Your task to perform on an android device: Go to ESPN.com Image 0: 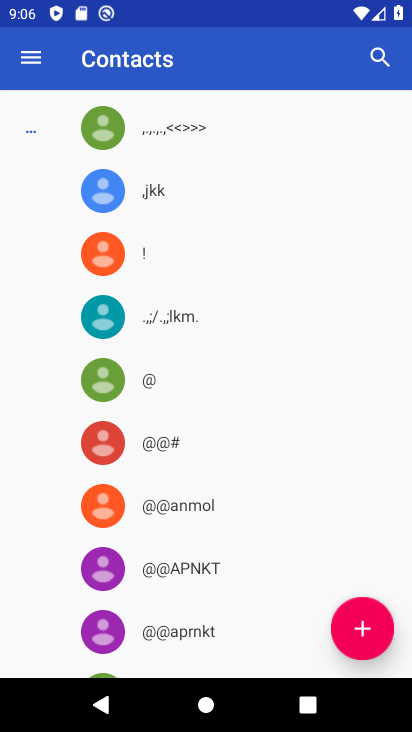
Step 0: press home button
Your task to perform on an android device: Go to ESPN.com Image 1: 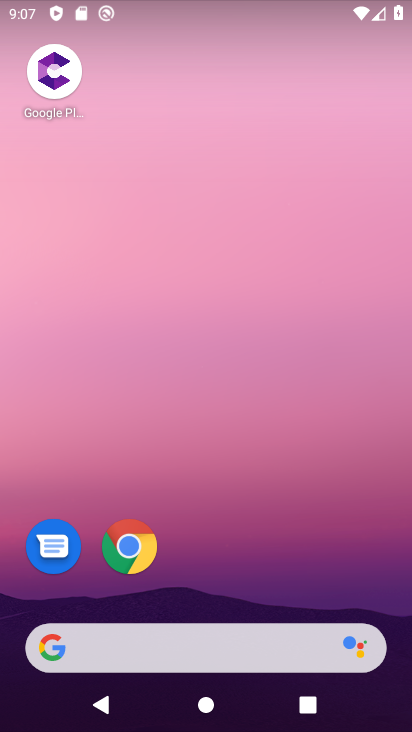
Step 1: click (124, 551)
Your task to perform on an android device: Go to ESPN.com Image 2: 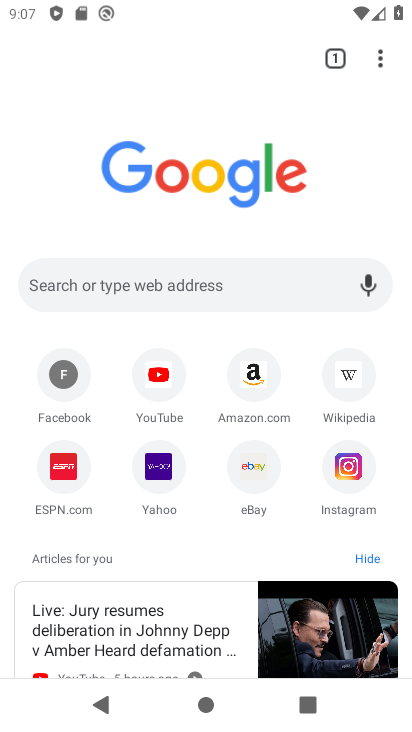
Step 2: click (55, 482)
Your task to perform on an android device: Go to ESPN.com Image 3: 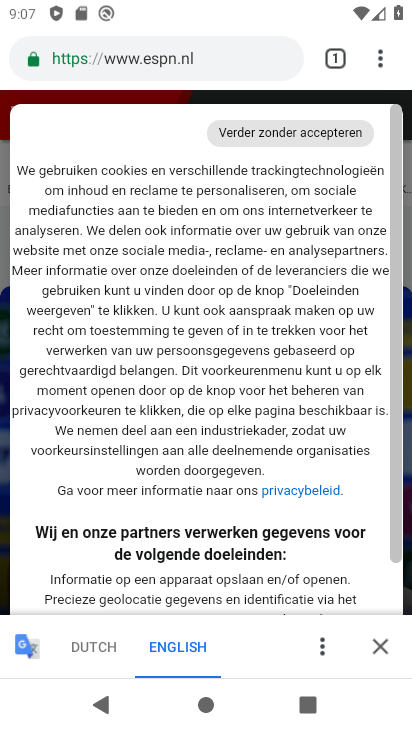
Step 3: task complete